Your task to perform on an android device: Search for a new desk on Ikea Image 0: 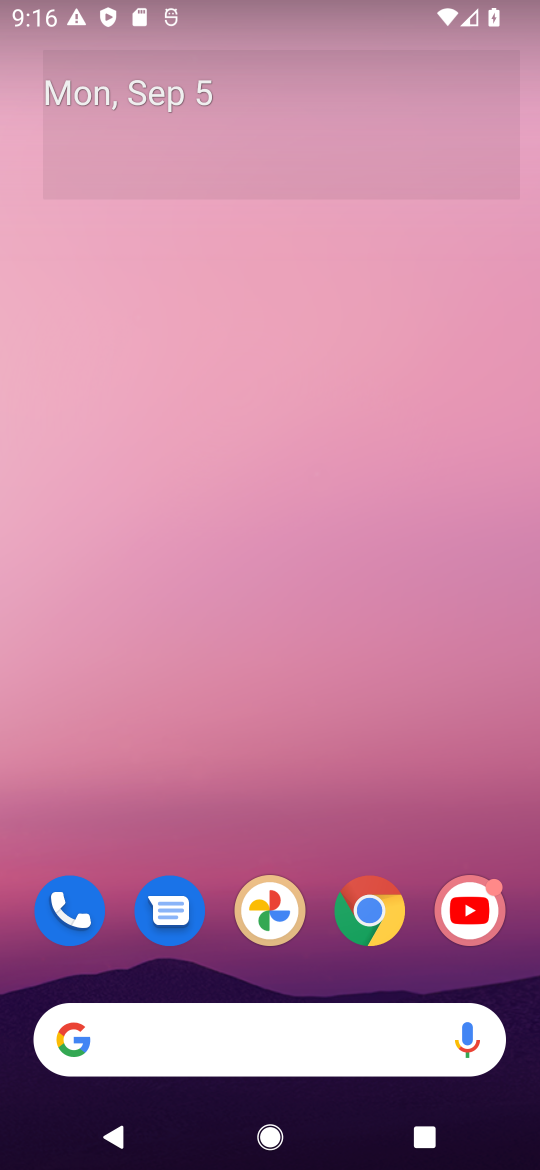
Step 0: click (378, 924)
Your task to perform on an android device: Search for a new desk on Ikea Image 1: 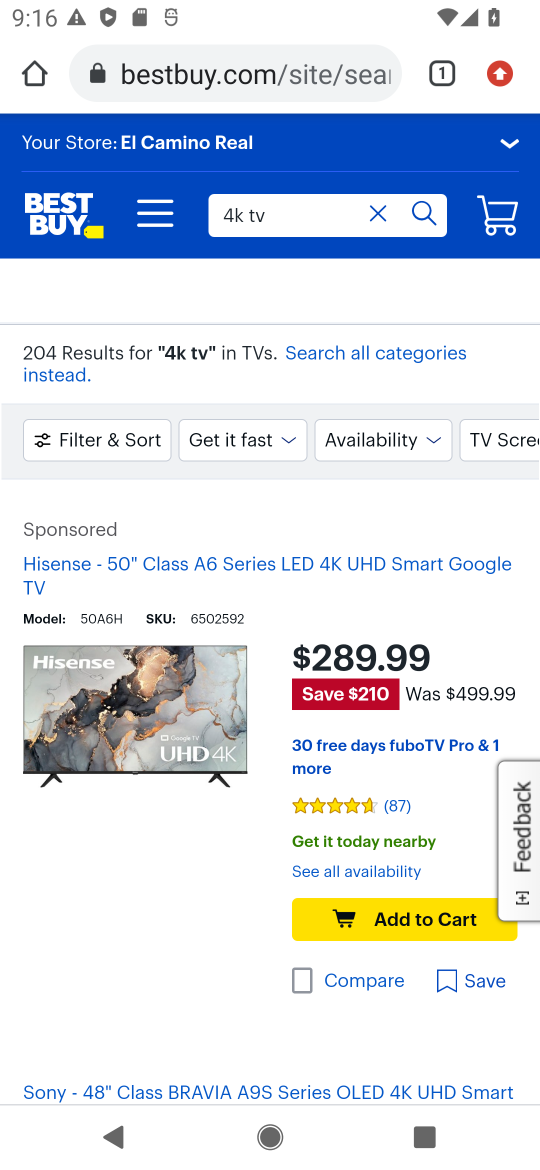
Step 1: click (321, 64)
Your task to perform on an android device: Search for a new desk on Ikea Image 2: 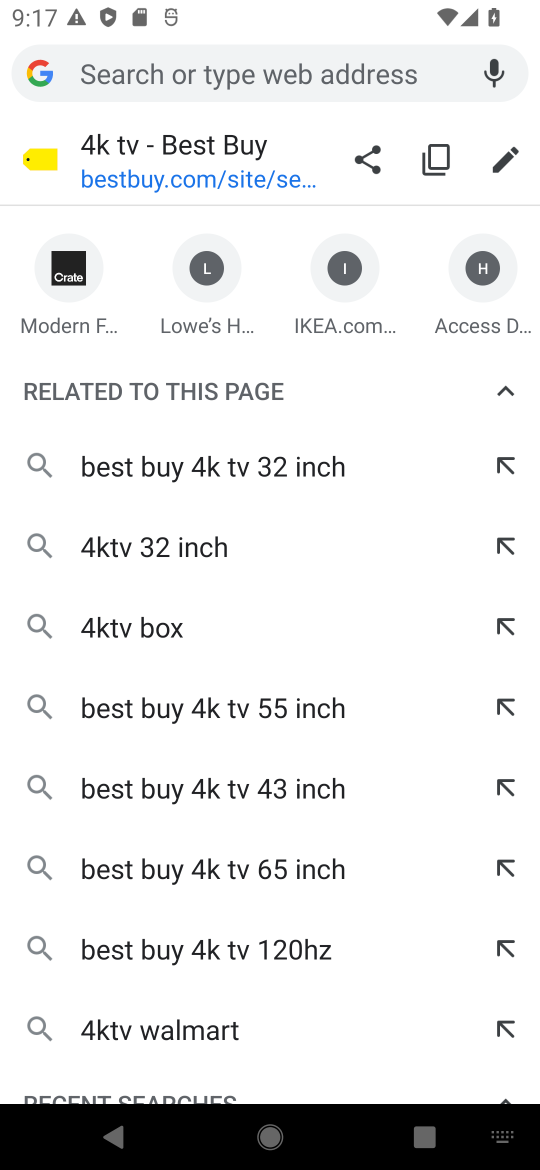
Step 2: type "ikea"
Your task to perform on an android device: Search for a new desk on Ikea Image 3: 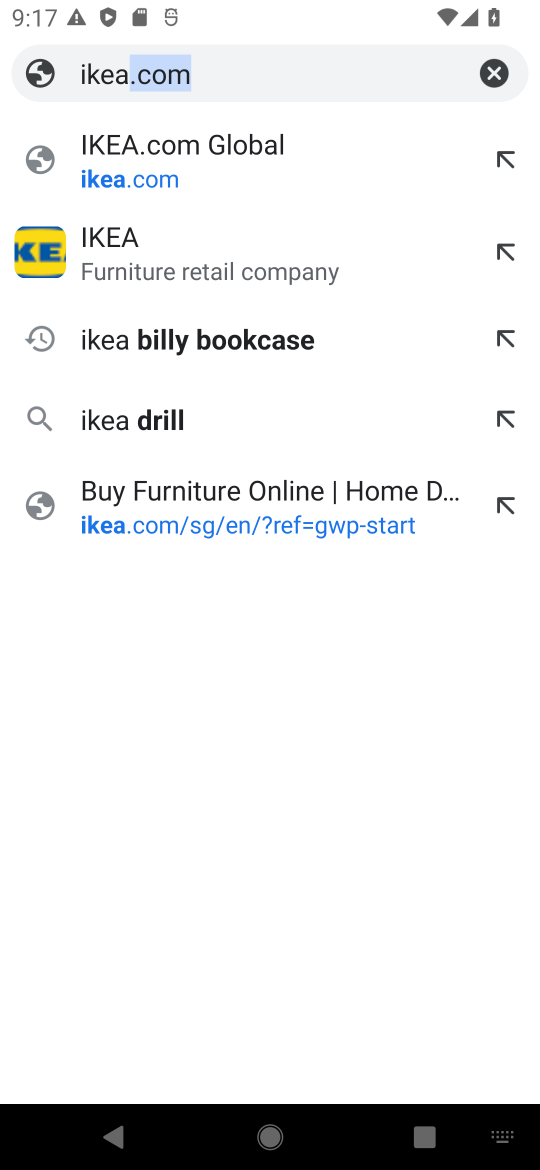
Step 3: click (244, 157)
Your task to perform on an android device: Search for a new desk on Ikea Image 4: 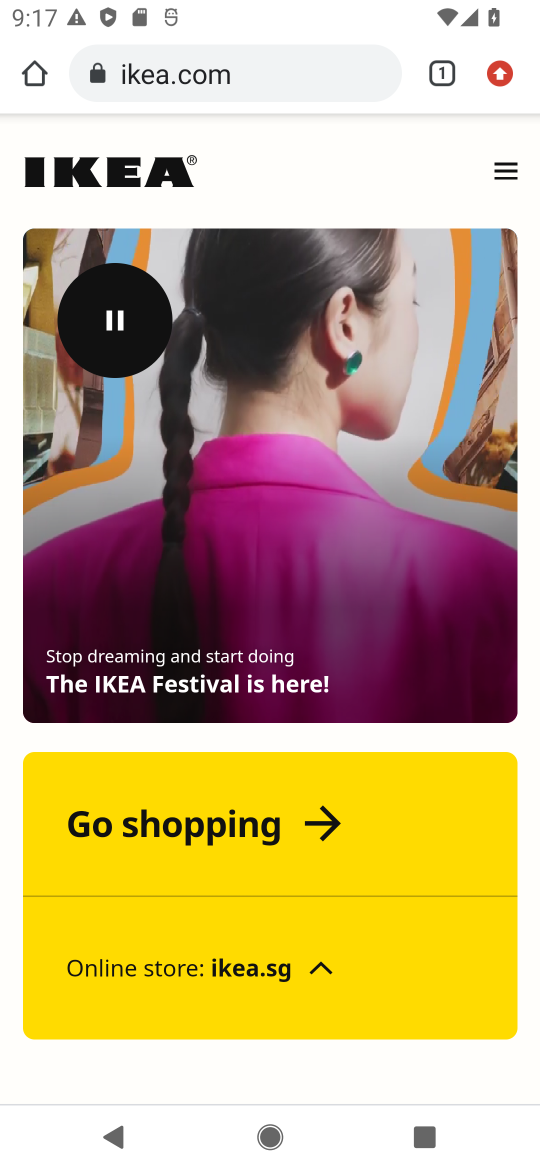
Step 4: click (311, 811)
Your task to perform on an android device: Search for a new desk on Ikea Image 5: 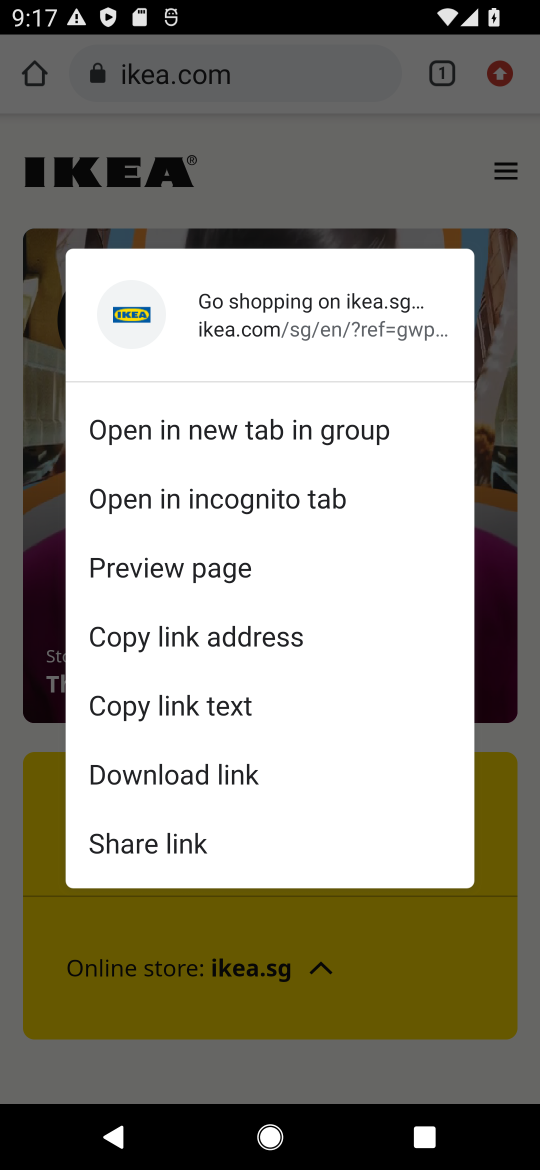
Step 5: press back button
Your task to perform on an android device: Search for a new desk on Ikea Image 6: 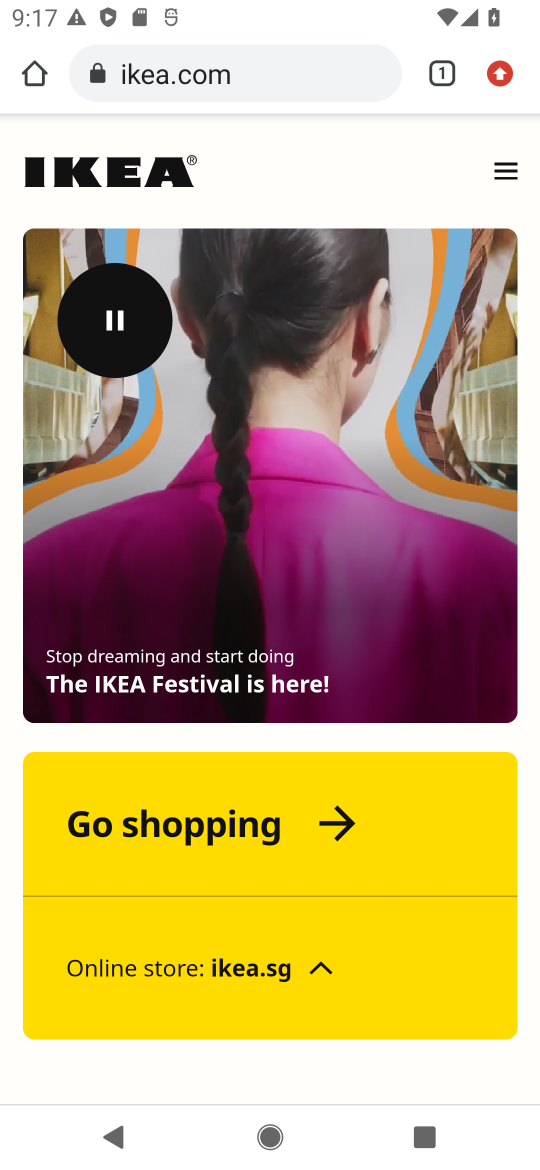
Step 6: click (334, 835)
Your task to perform on an android device: Search for a new desk on Ikea Image 7: 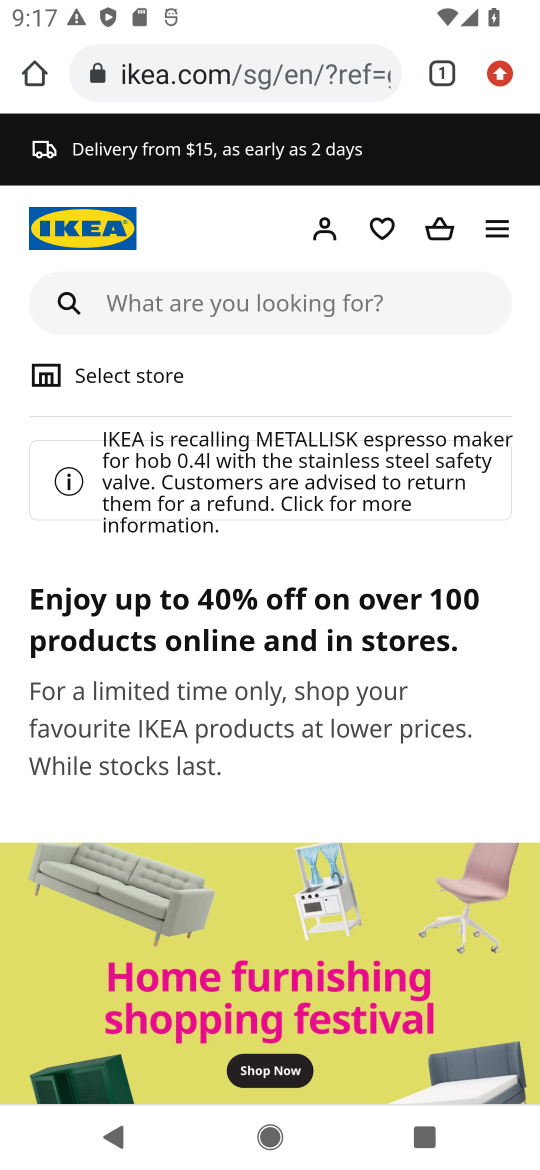
Step 7: click (293, 315)
Your task to perform on an android device: Search for a new desk on Ikea Image 8: 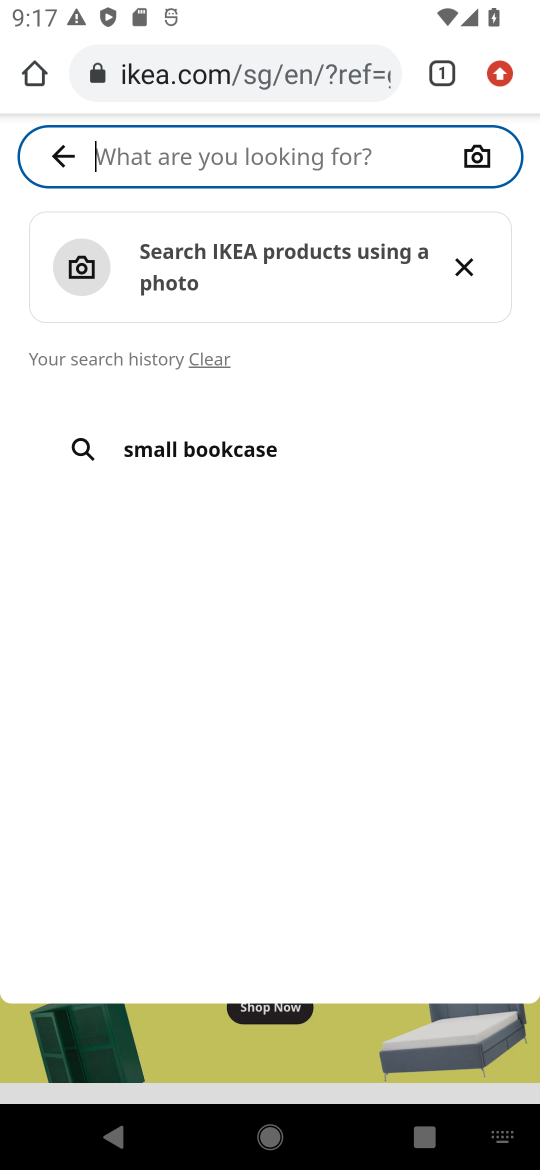
Step 8: type "new desk"
Your task to perform on an android device: Search for a new desk on Ikea Image 9: 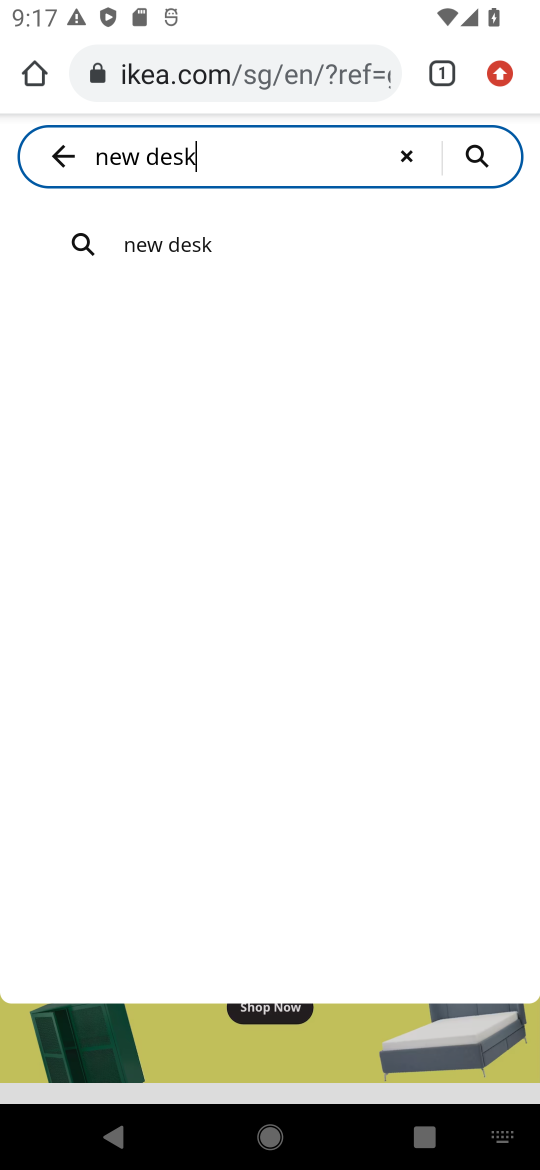
Step 9: click (190, 256)
Your task to perform on an android device: Search for a new desk on Ikea Image 10: 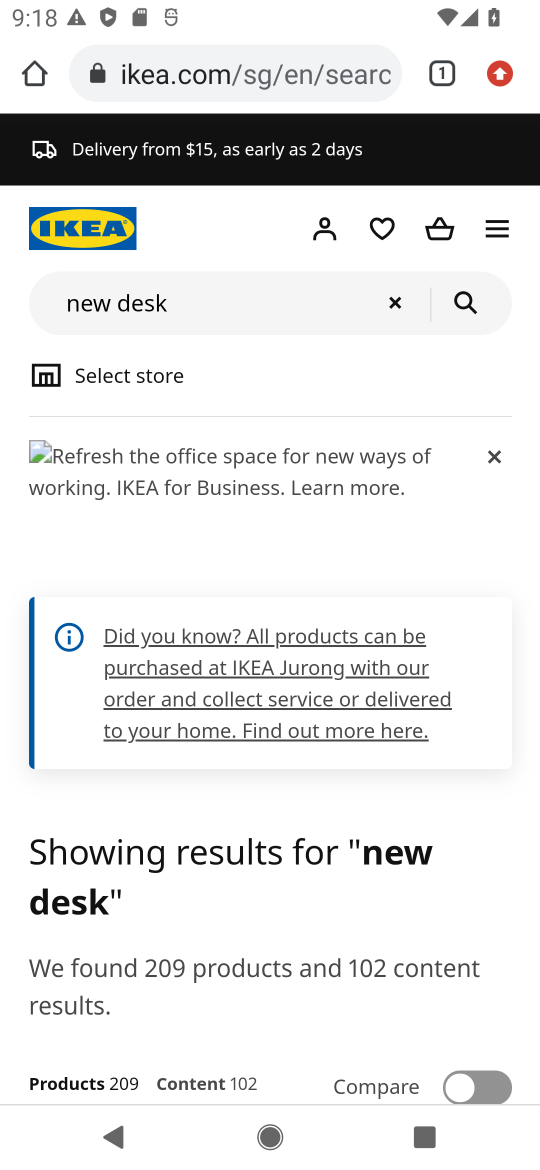
Step 10: task complete